Your task to perform on an android device: change the clock style Image 0: 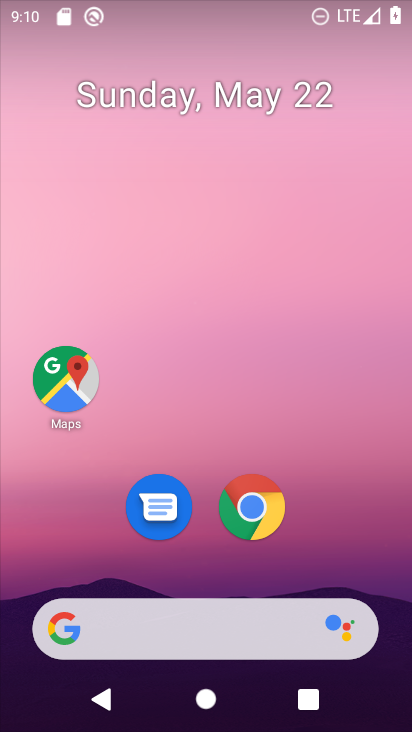
Step 0: drag from (256, 662) to (361, 140)
Your task to perform on an android device: change the clock style Image 1: 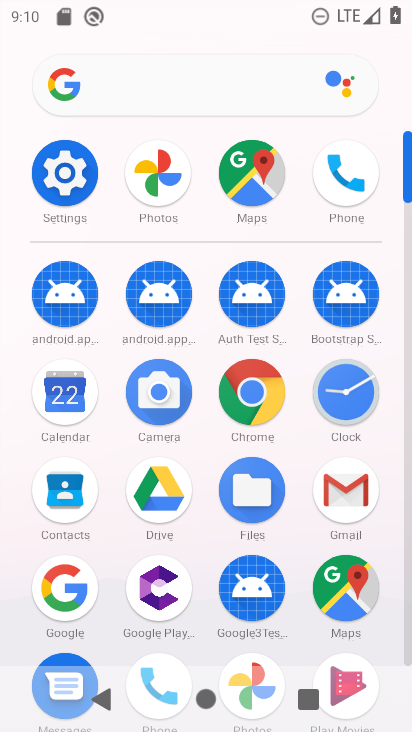
Step 1: click (340, 387)
Your task to perform on an android device: change the clock style Image 2: 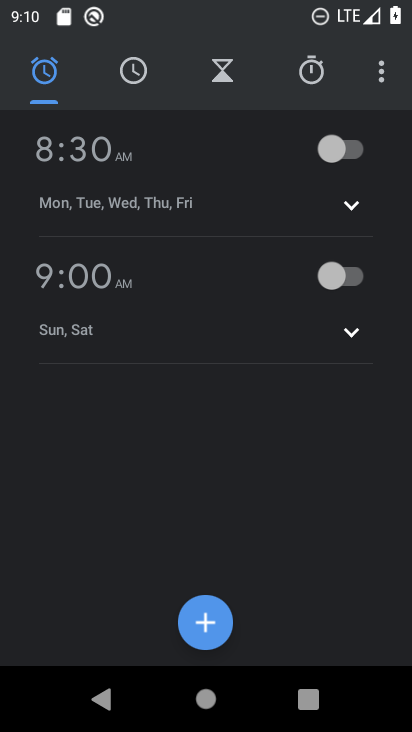
Step 2: click (385, 68)
Your task to perform on an android device: change the clock style Image 3: 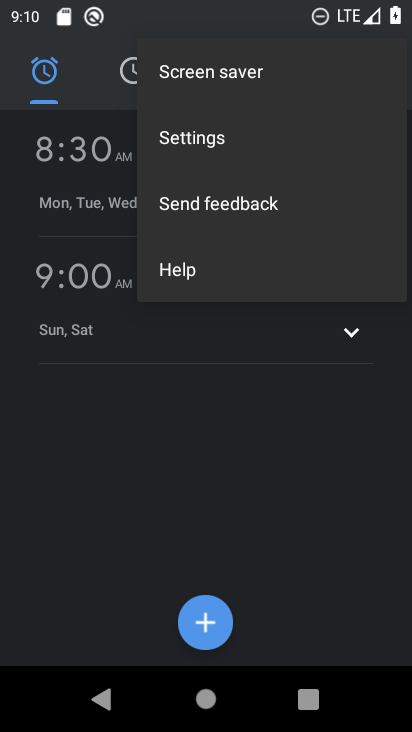
Step 3: click (245, 140)
Your task to perform on an android device: change the clock style Image 4: 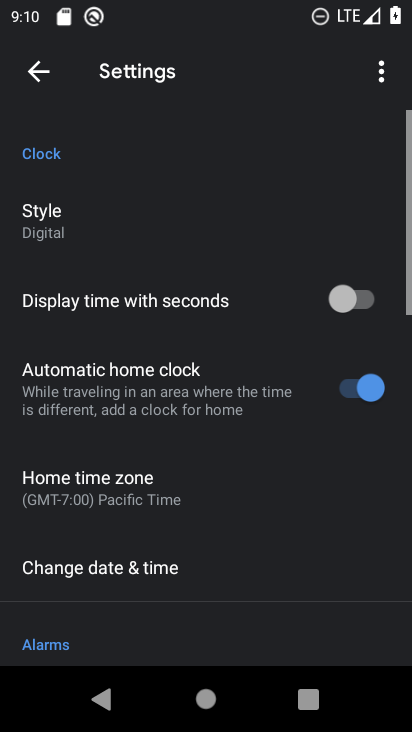
Step 4: click (66, 240)
Your task to perform on an android device: change the clock style Image 5: 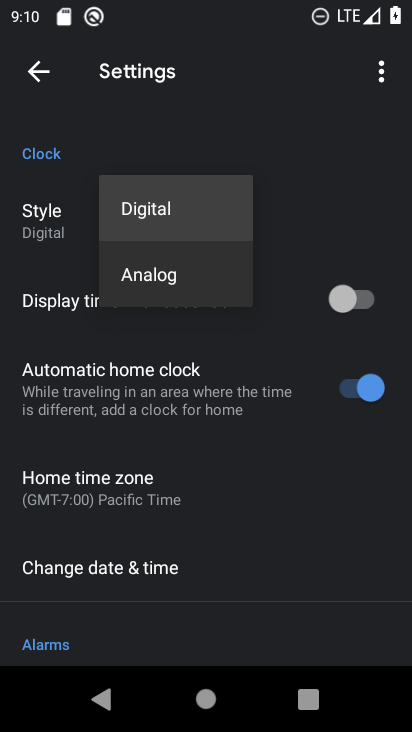
Step 5: click (181, 271)
Your task to perform on an android device: change the clock style Image 6: 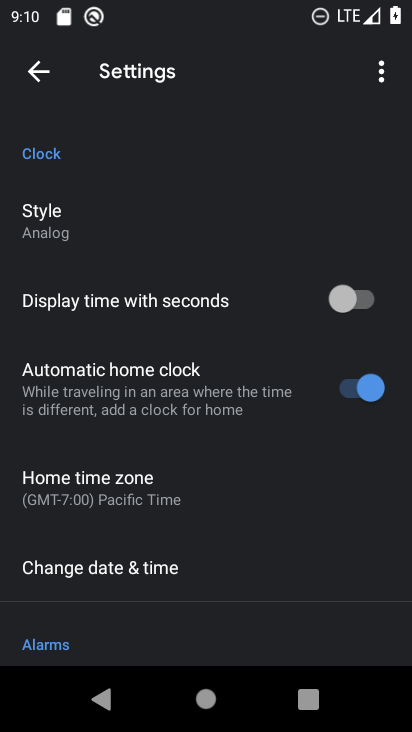
Step 6: task complete